Your task to perform on an android device: refresh tabs in the chrome app Image 0: 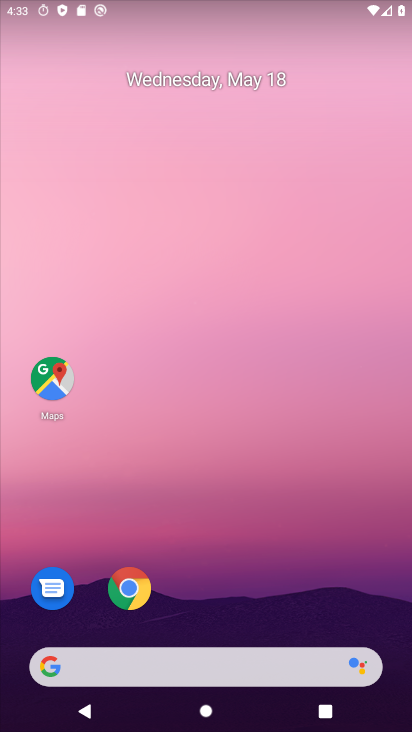
Step 0: click (125, 584)
Your task to perform on an android device: refresh tabs in the chrome app Image 1: 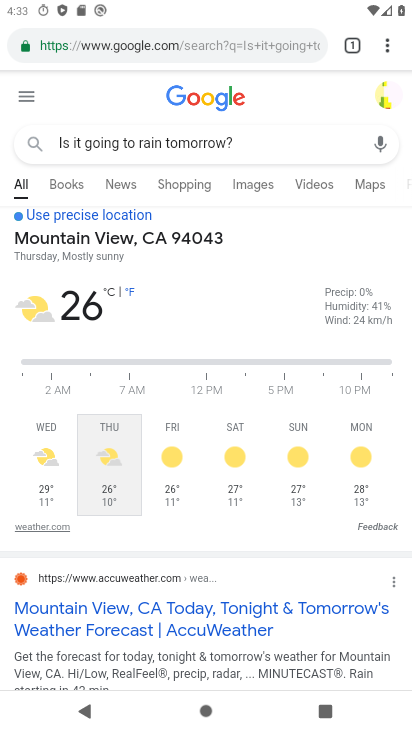
Step 1: click (386, 47)
Your task to perform on an android device: refresh tabs in the chrome app Image 2: 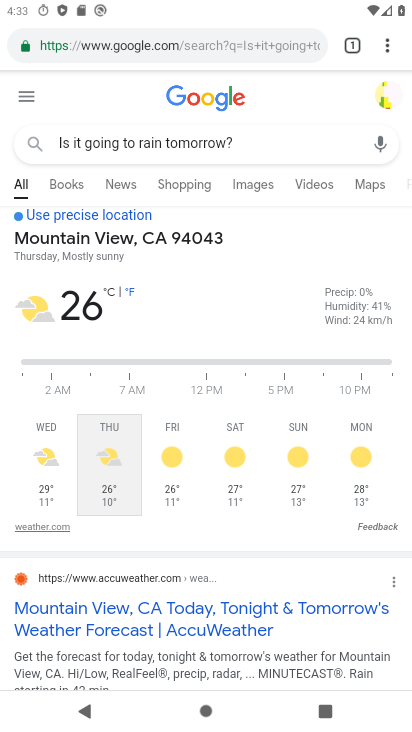
Step 2: task complete